Your task to perform on an android device: open chrome privacy settings Image 0: 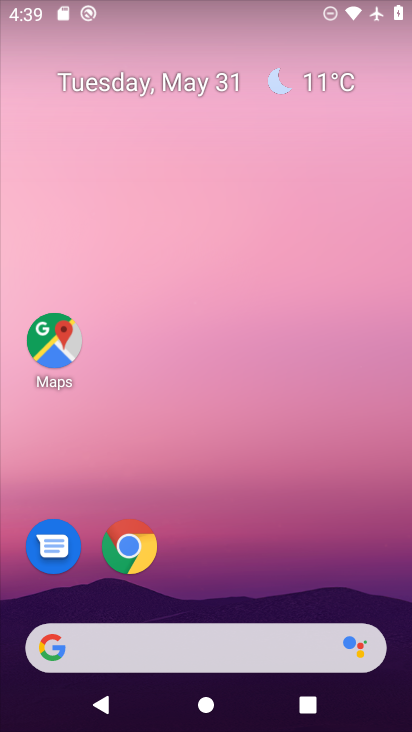
Step 0: drag from (261, 563) to (167, 33)
Your task to perform on an android device: open chrome privacy settings Image 1: 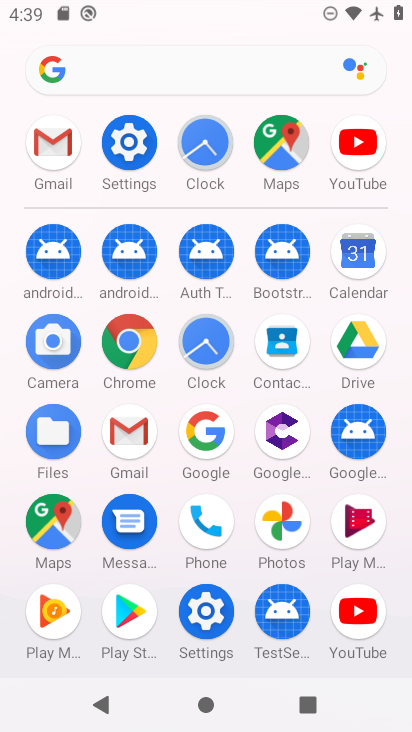
Step 1: click (139, 349)
Your task to perform on an android device: open chrome privacy settings Image 2: 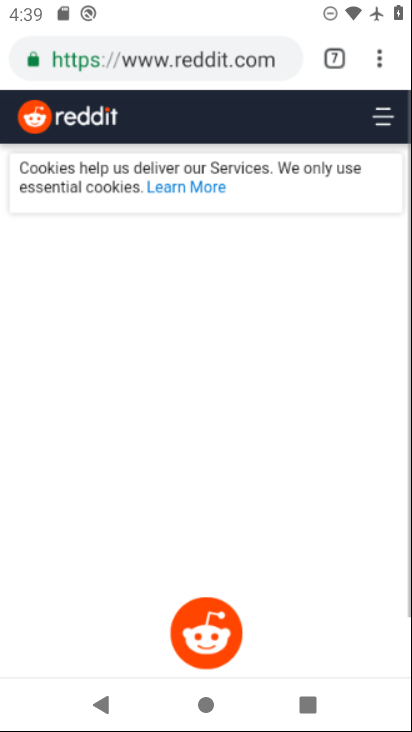
Step 2: click (382, 53)
Your task to perform on an android device: open chrome privacy settings Image 3: 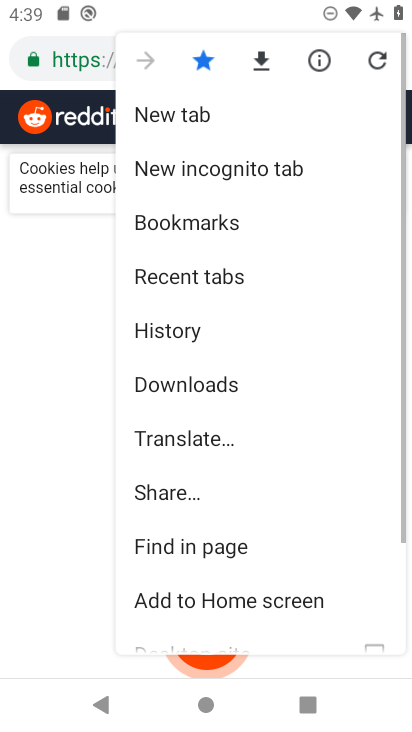
Step 3: drag from (263, 552) to (220, 80)
Your task to perform on an android device: open chrome privacy settings Image 4: 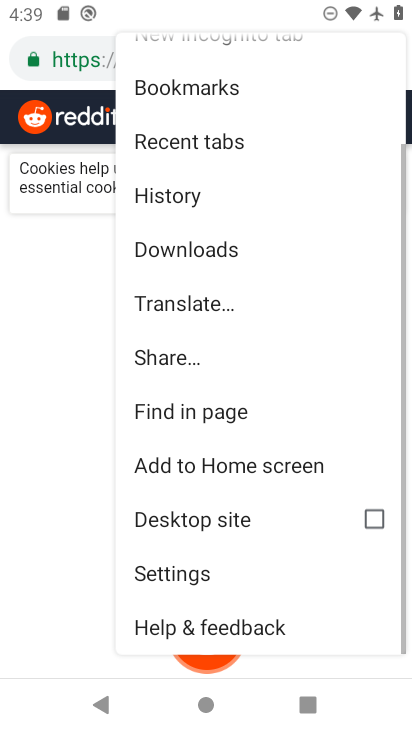
Step 4: click (186, 571)
Your task to perform on an android device: open chrome privacy settings Image 5: 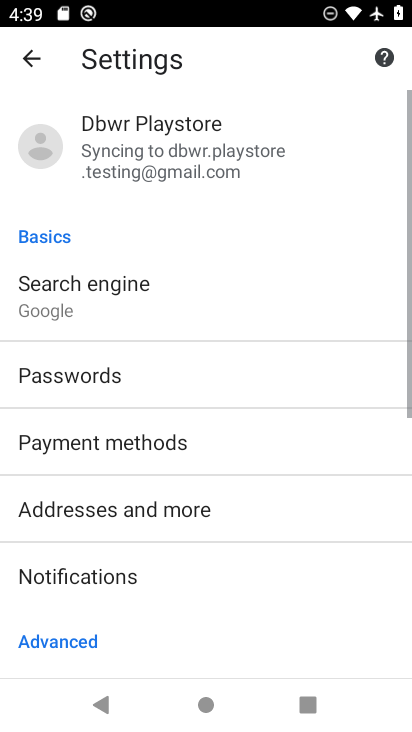
Step 5: drag from (149, 525) to (149, 81)
Your task to perform on an android device: open chrome privacy settings Image 6: 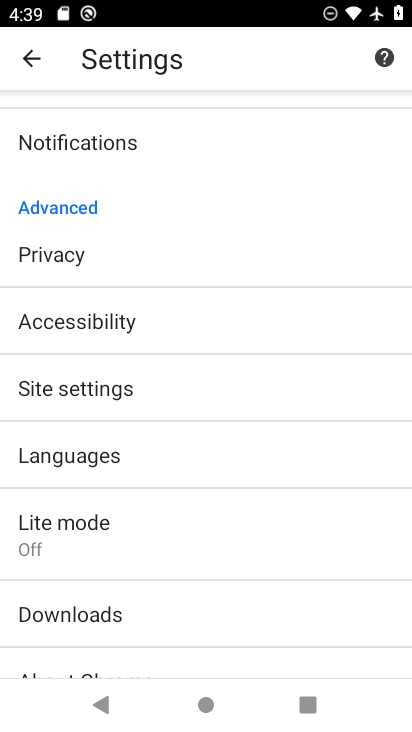
Step 6: click (125, 261)
Your task to perform on an android device: open chrome privacy settings Image 7: 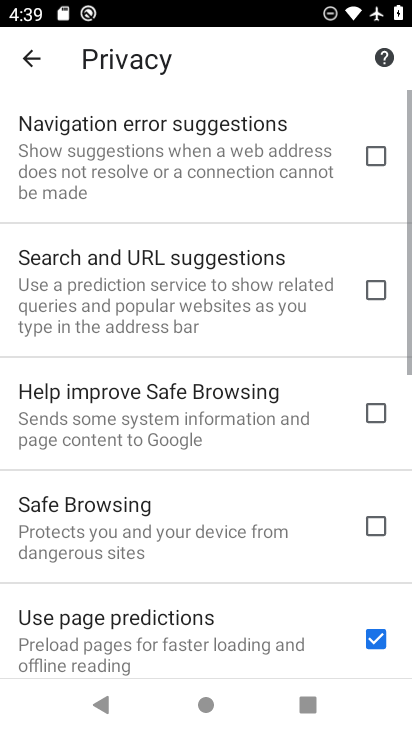
Step 7: task complete